Your task to perform on an android device: find which apps use the phone's location Image 0: 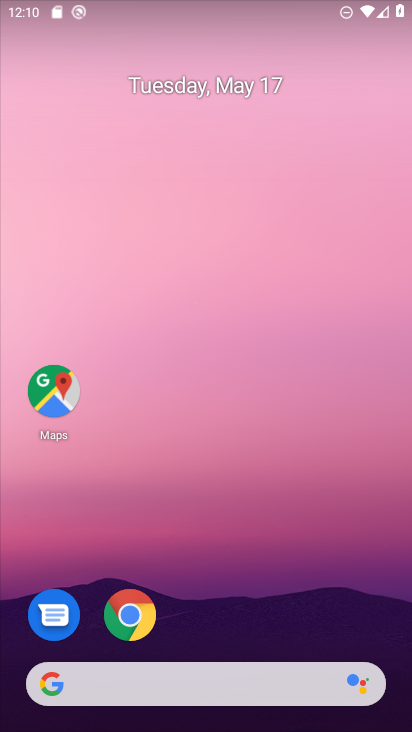
Step 0: drag from (204, 655) to (152, 193)
Your task to perform on an android device: find which apps use the phone's location Image 1: 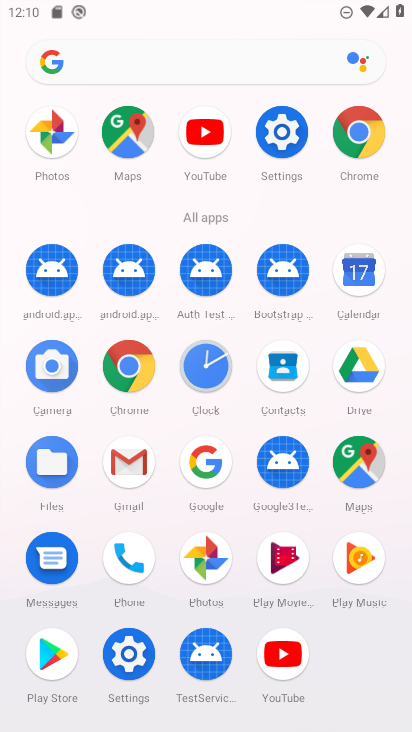
Step 1: click (270, 124)
Your task to perform on an android device: find which apps use the phone's location Image 2: 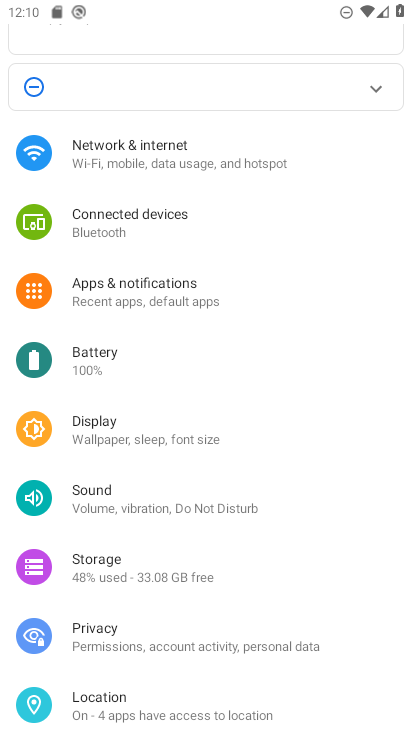
Step 2: click (120, 703)
Your task to perform on an android device: find which apps use the phone's location Image 3: 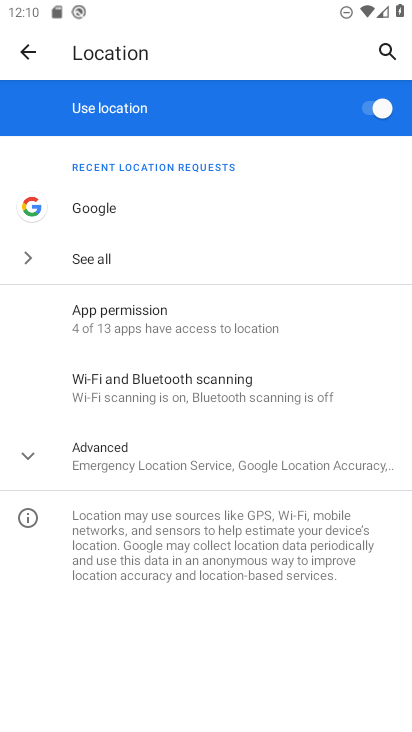
Step 3: click (114, 316)
Your task to perform on an android device: find which apps use the phone's location Image 4: 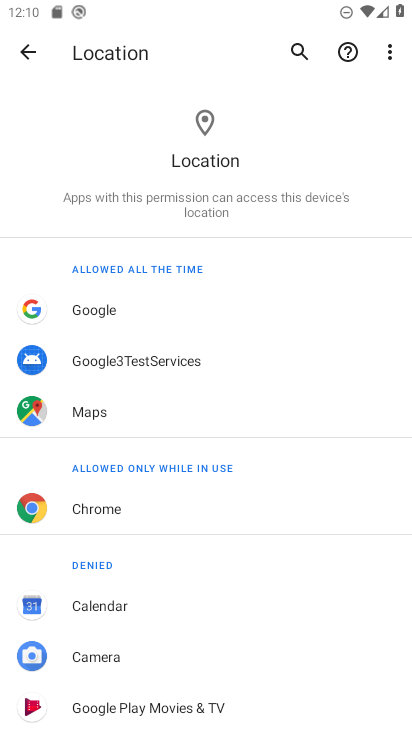
Step 4: task complete